Your task to perform on an android device: turn pop-ups on in chrome Image 0: 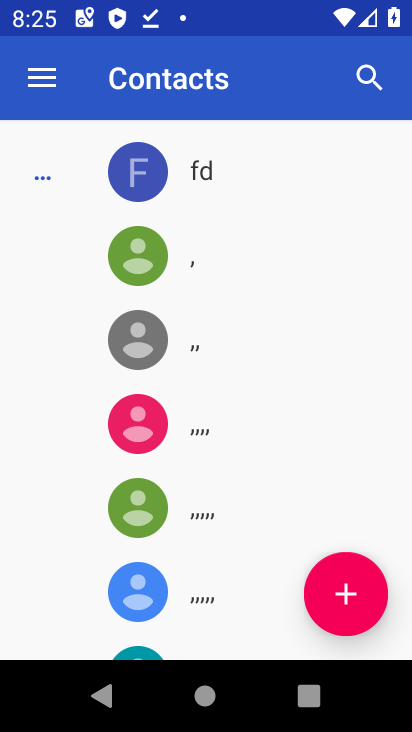
Step 0: press back button
Your task to perform on an android device: turn pop-ups on in chrome Image 1: 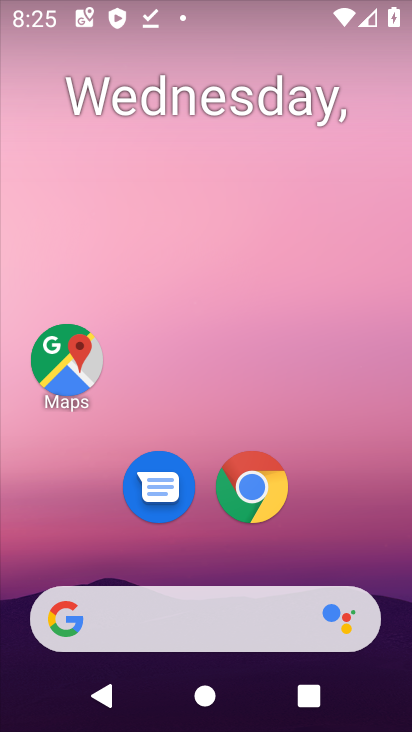
Step 1: drag from (371, 647) to (248, 145)
Your task to perform on an android device: turn pop-ups on in chrome Image 2: 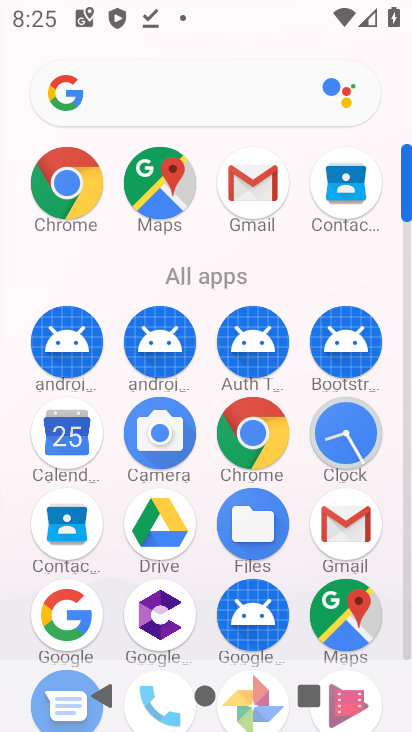
Step 2: click (256, 420)
Your task to perform on an android device: turn pop-ups on in chrome Image 3: 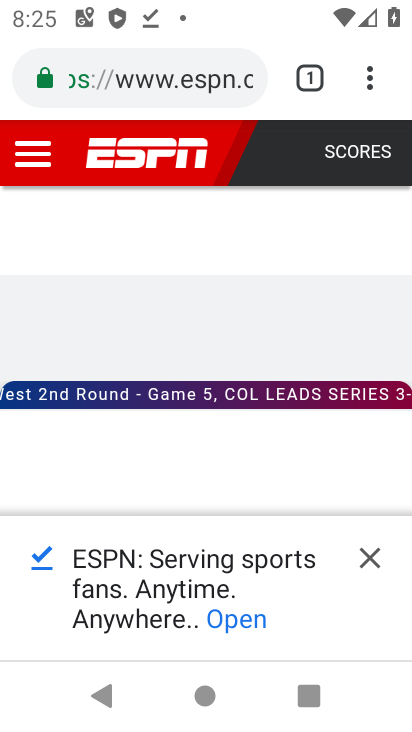
Step 3: click (365, 87)
Your task to perform on an android device: turn pop-ups on in chrome Image 4: 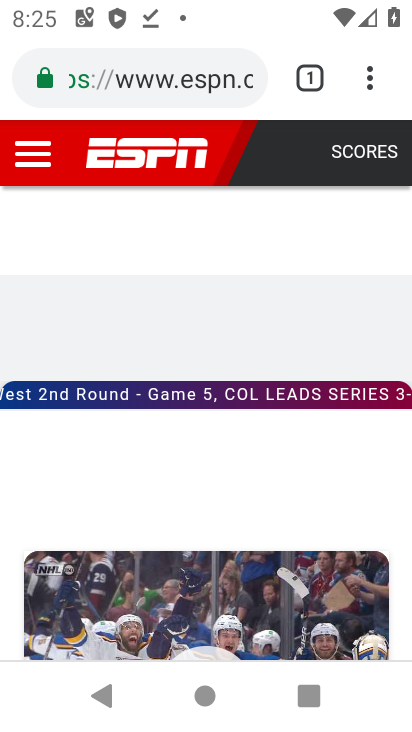
Step 4: drag from (360, 81) to (105, 544)
Your task to perform on an android device: turn pop-ups on in chrome Image 5: 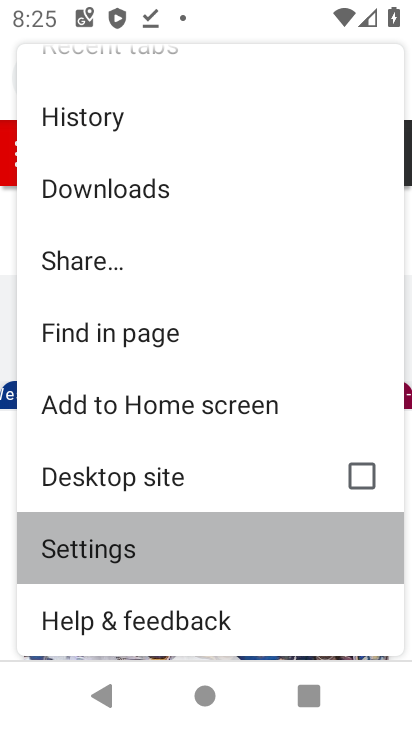
Step 5: click (99, 542)
Your task to perform on an android device: turn pop-ups on in chrome Image 6: 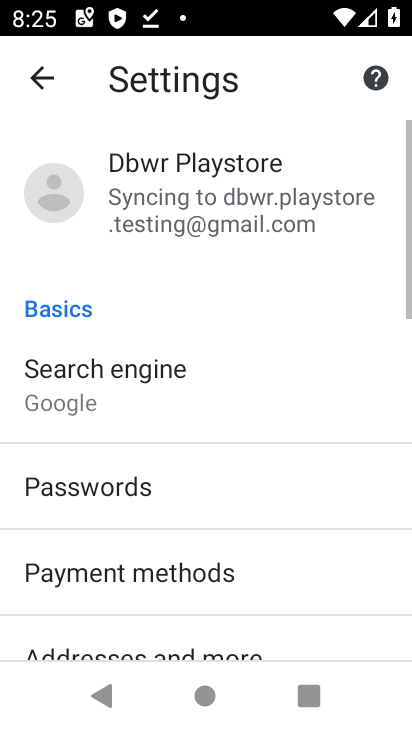
Step 6: drag from (192, 500) to (222, 5)
Your task to perform on an android device: turn pop-ups on in chrome Image 7: 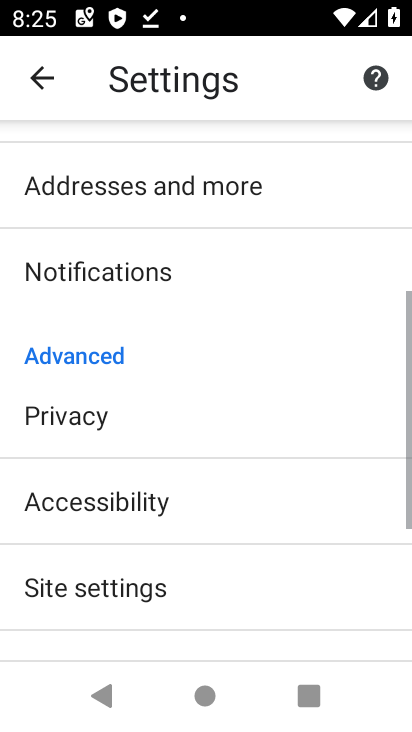
Step 7: drag from (220, 605) to (248, 224)
Your task to perform on an android device: turn pop-ups on in chrome Image 8: 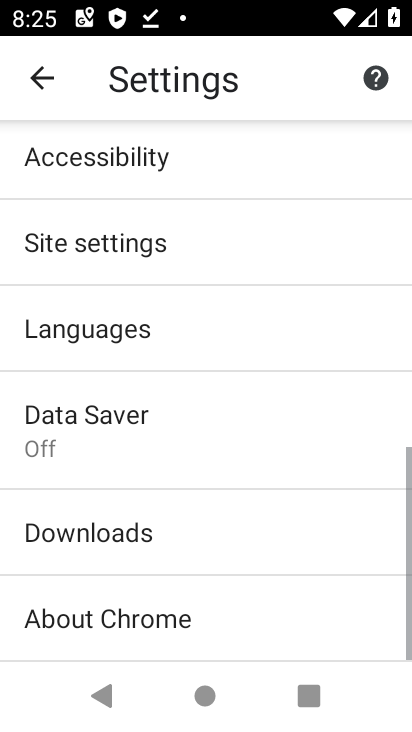
Step 8: drag from (196, 573) to (254, 159)
Your task to perform on an android device: turn pop-ups on in chrome Image 9: 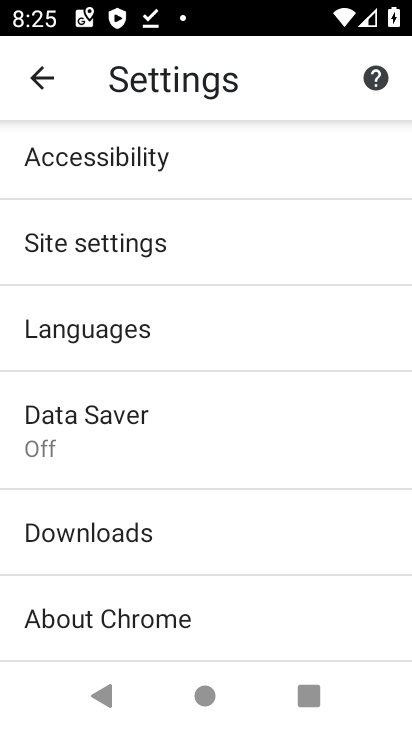
Step 9: click (87, 260)
Your task to perform on an android device: turn pop-ups on in chrome Image 10: 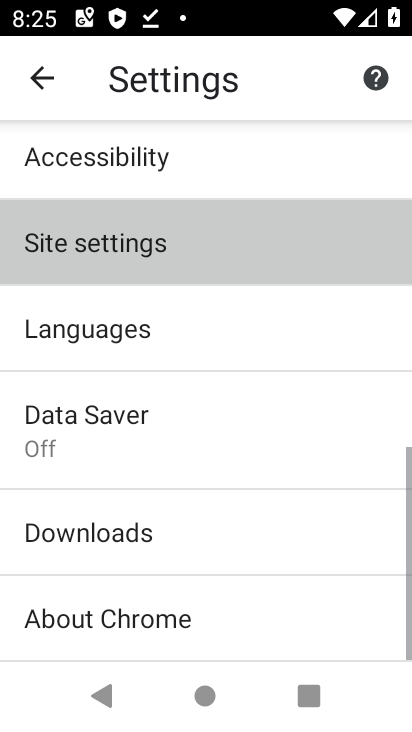
Step 10: click (87, 259)
Your task to perform on an android device: turn pop-ups on in chrome Image 11: 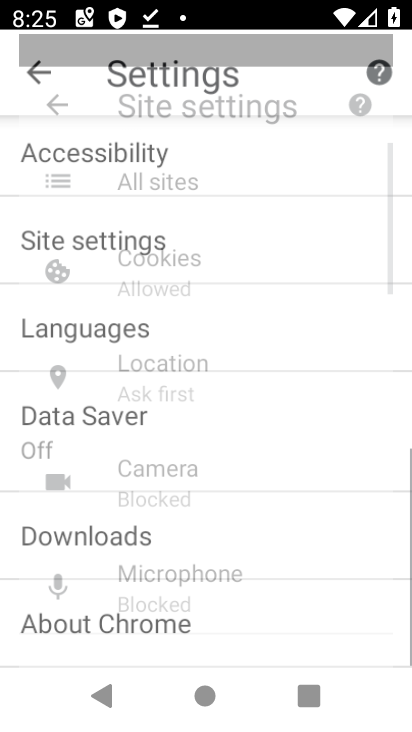
Step 11: click (104, 254)
Your task to perform on an android device: turn pop-ups on in chrome Image 12: 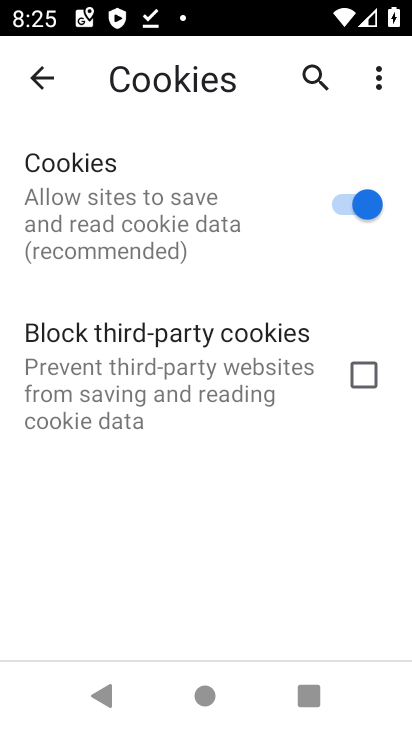
Step 12: click (32, 72)
Your task to perform on an android device: turn pop-ups on in chrome Image 13: 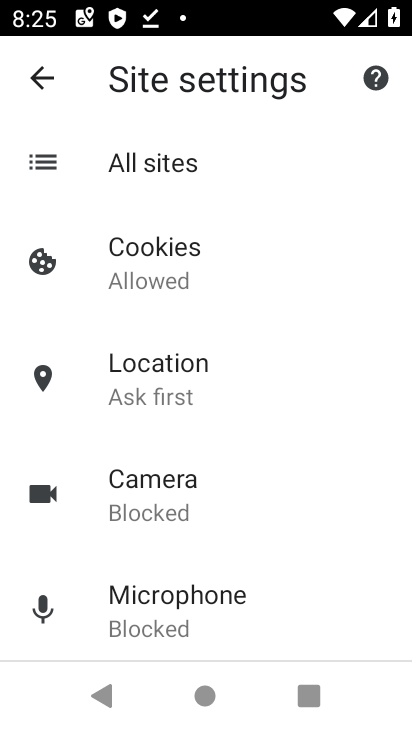
Step 13: drag from (166, 375) to (178, 204)
Your task to perform on an android device: turn pop-ups on in chrome Image 14: 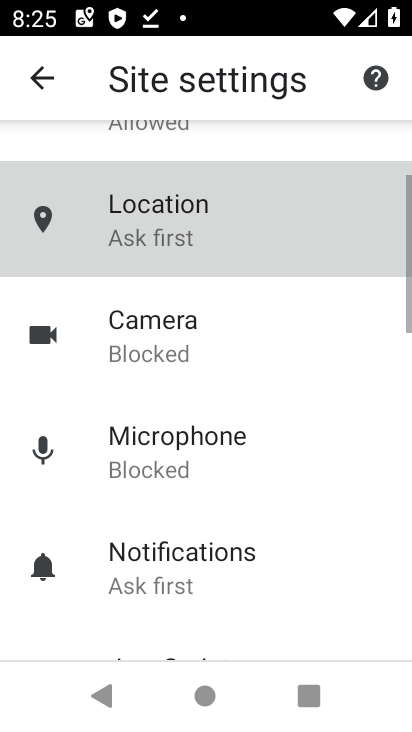
Step 14: drag from (171, 489) to (183, 119)
Your task to perform on an android device: turn pop-ups on in chrome Image 15: 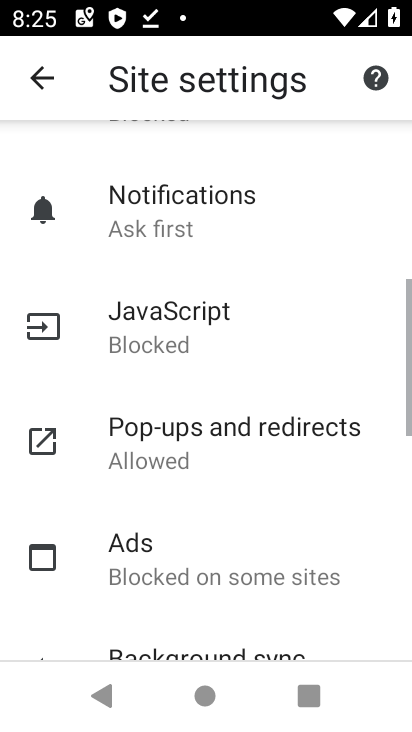
Step 15: drag from (162, 485) to (216, 146)
Your task to perform on an android device: turn pop-ups on in chrome Image 16: 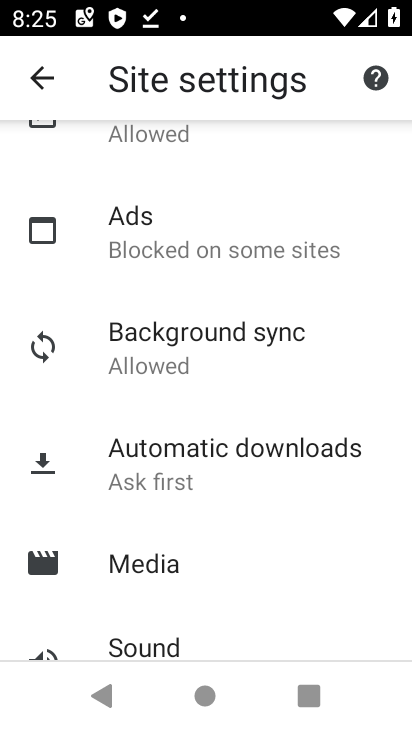
Step 16: drag from (193, 269) to (193, 561)
Your task to perform on an android device: turn pop-ups on in chrome Image 17: 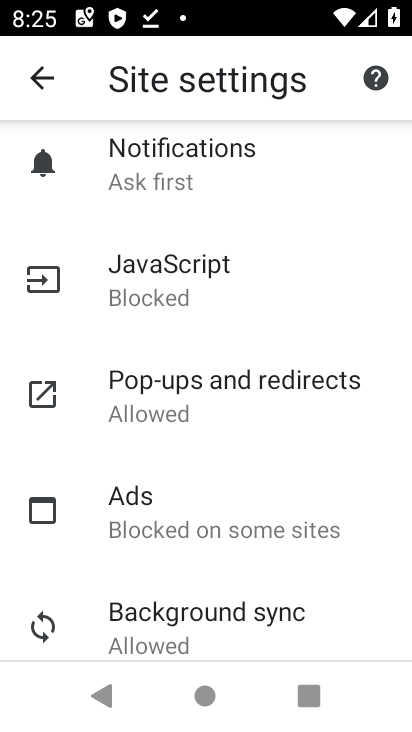
Step 17: click (150, 412)
Your task to perform on an android device: turn pop-ups on in chrome Image 18: 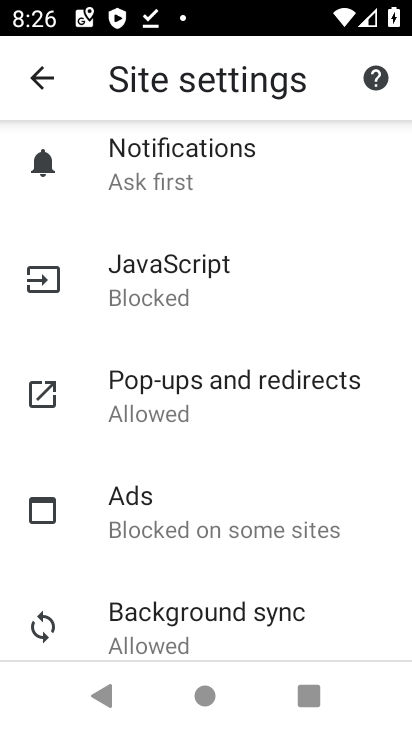
Step 18: click (163, 406)
Your task to perform on an android device: turn pop-ups on in chrome Image 19: 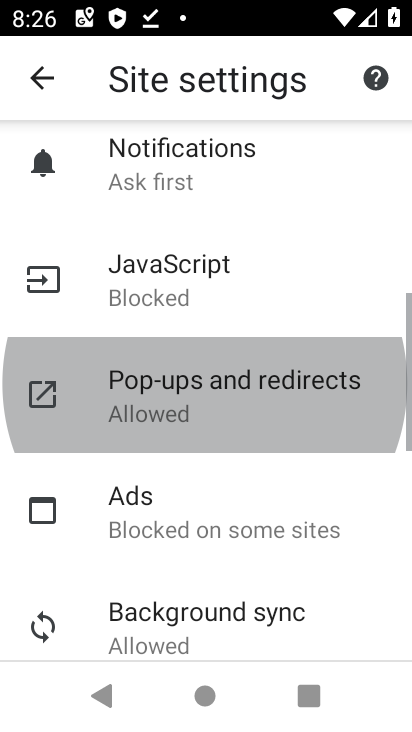
Step 19: click (165, 402)
Your task to perform on an android device: turn pop-ups on in chrome Image 20: 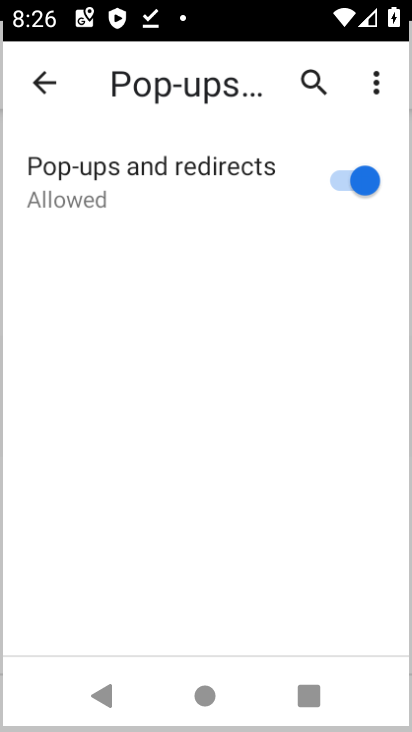
Step 20: click (165, 401)
Your task to perform on an android device: turn pop-ups on in chrome Image 21: 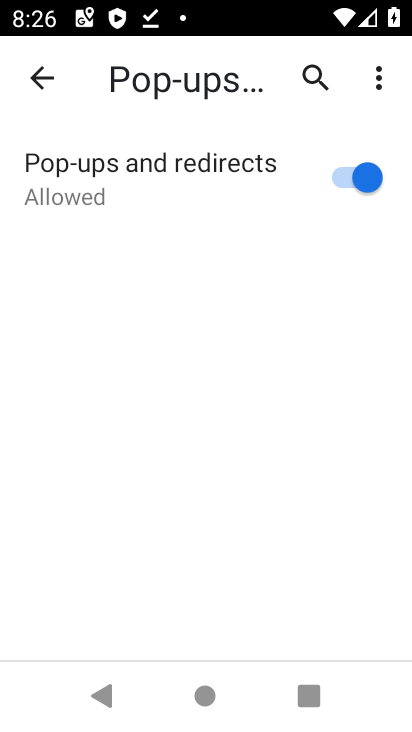
Step 21: task complete